Your task to perform on an android device: Go to network settings Image 0: 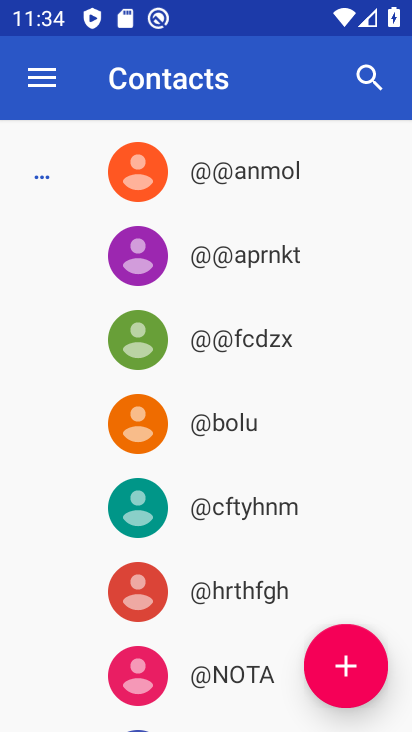
Step 0: press home button
Your task to perform on an android device: Go to network settings Image 1: 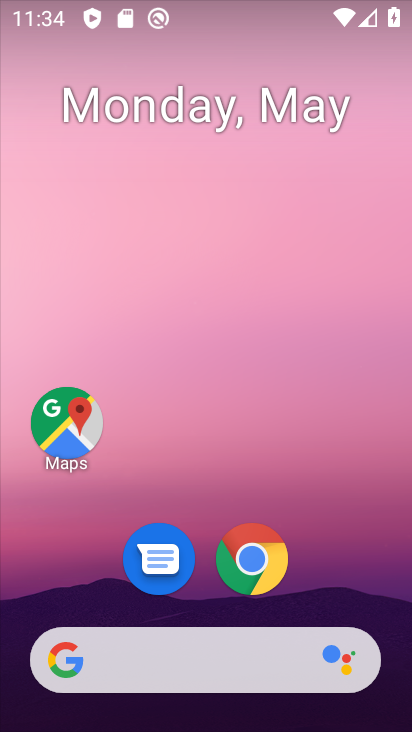
Step 1: drag from (370, 578) to (344, 24)
Your task to perform on an android device: Go to network settings Image 2: 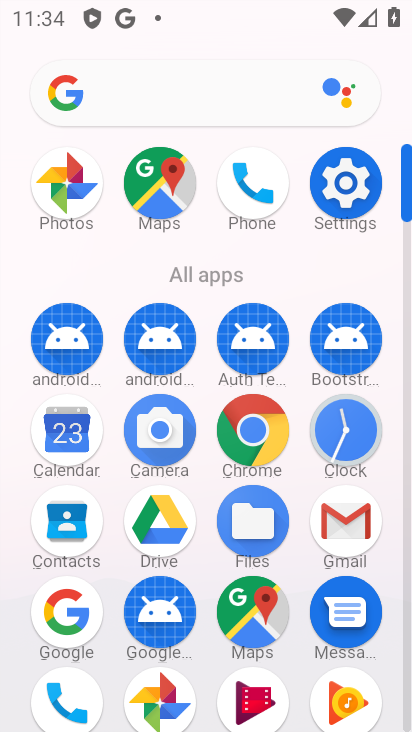
Step 2: click (343, 220)
Your task to perform on an android device: Go to network settings Image 3: 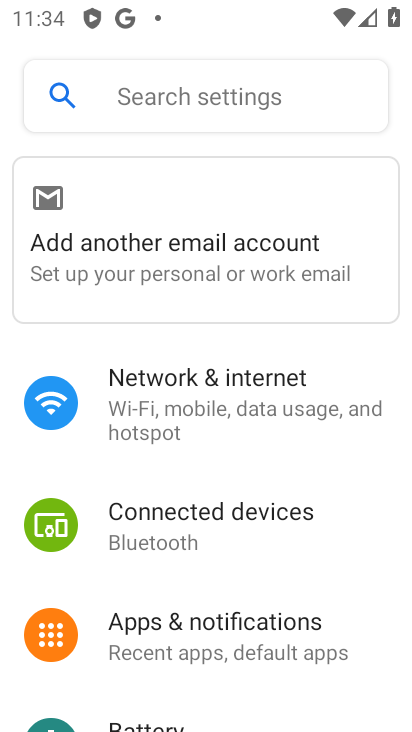
Step 3: click (185, 398)
Your task to perform on an android device: Go to network settings Image 4: 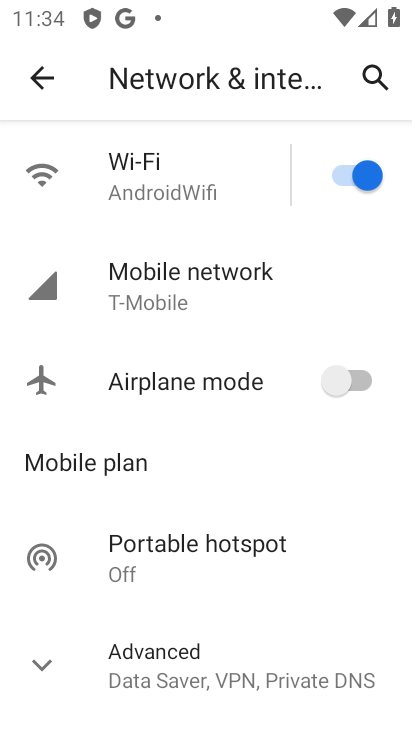
Step 4: task complete